Your task to perform on an android device: see sites visited before in the chrome app Image 0: 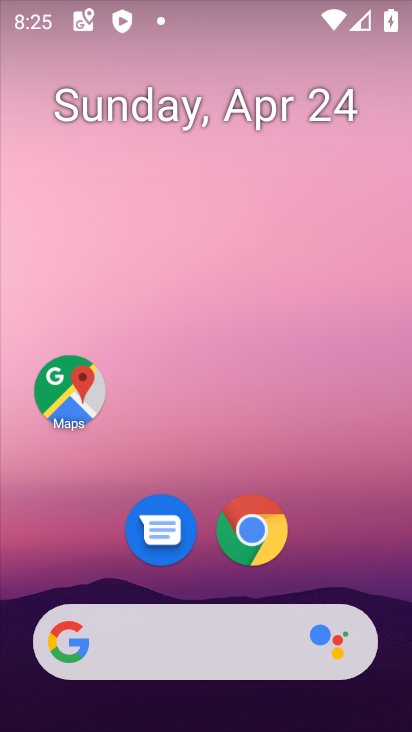
Step 0: click (253, 526)
Your task to perform on an android device: see sites visited before in the chrome app Image 1: 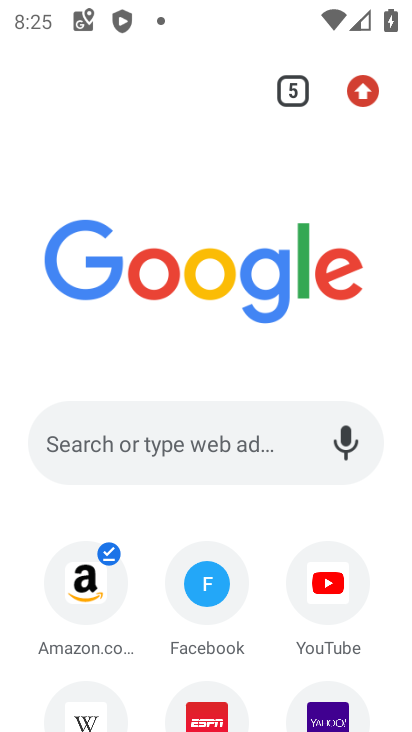
Step 1: click (359, 84)
Your task to perform on an android device: see sites visited before in the chrome app Image 2: 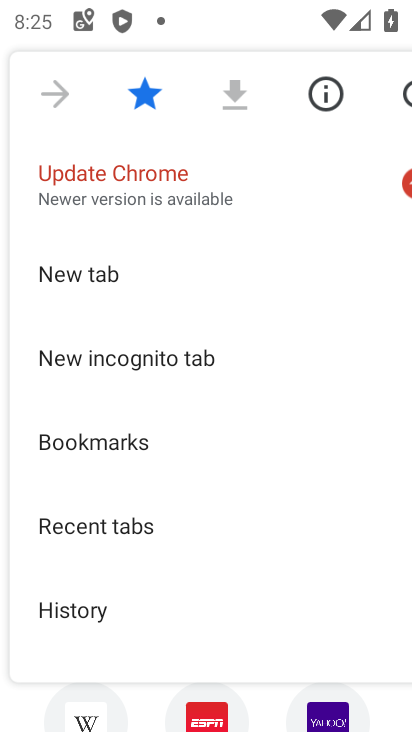
Step 2: click (135, 529)
Your task to perform on an android device: see sites visited before in the chrome app Image 3: 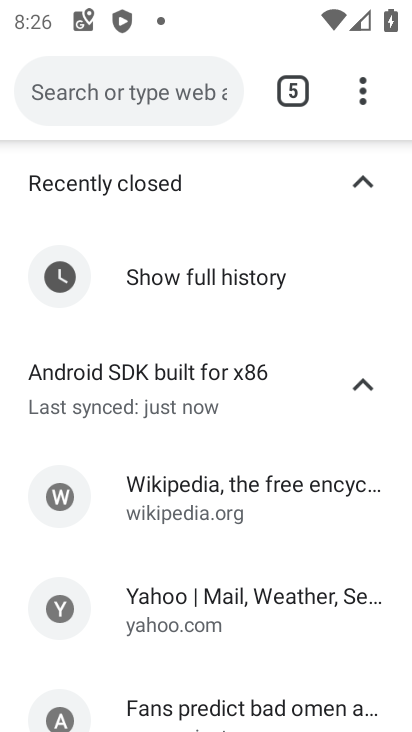
Step 3: task complete